Your task to perform on an android device: Go to Wikipedia Image 0: 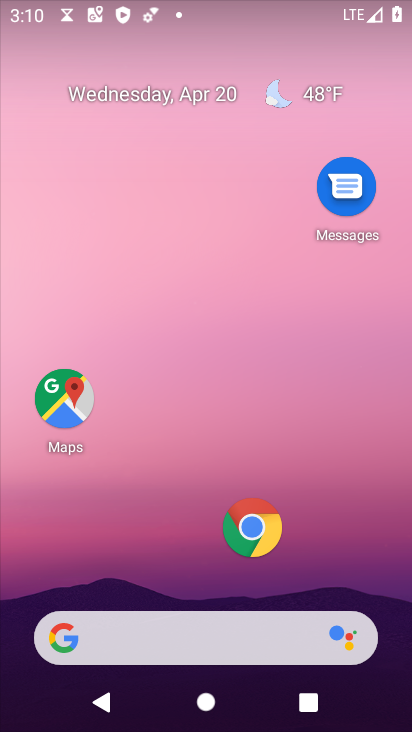
Step 0: drag from (230, 583) to (359, 3)
Your task to perform on an android device: Go to Wikipedia Image 1: 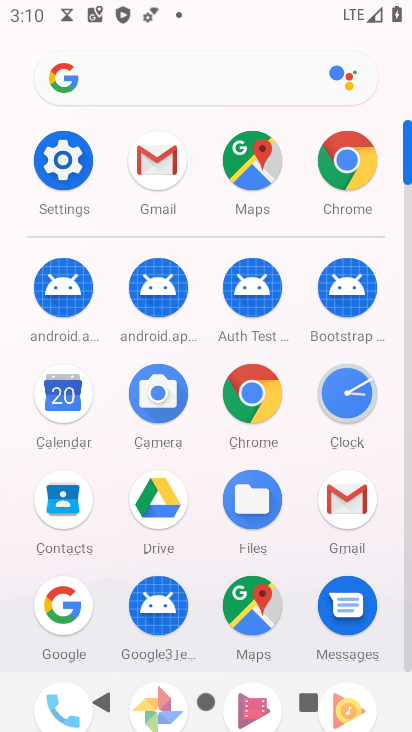
Step 1: click (336, 176)
Your task to perform on an android device: Go to Wikipedia Image 2: 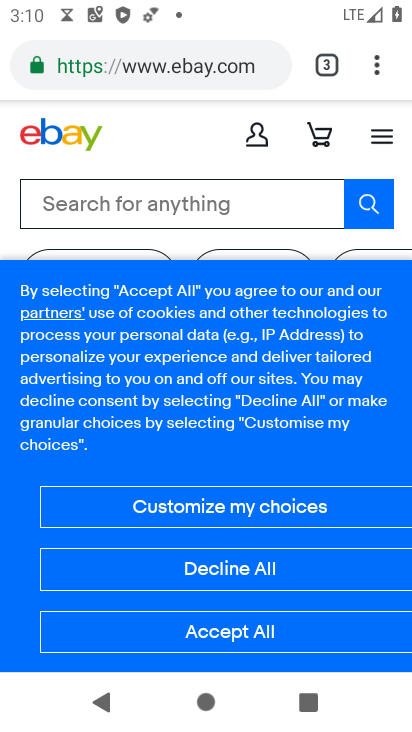
Step 2: click (379, 71)
Your task to perform on an android device: Go to Wikipedia Image 3: 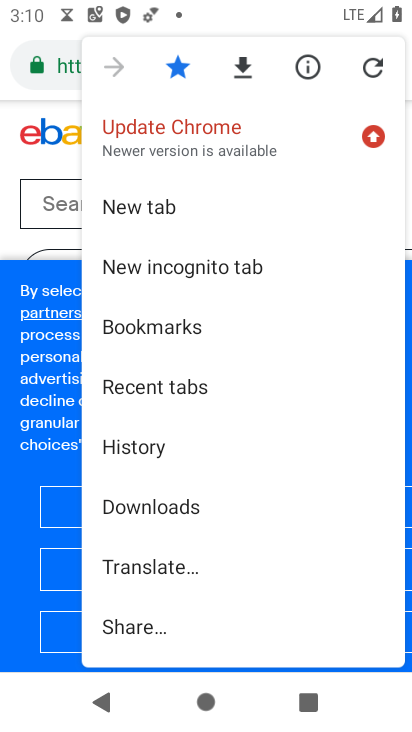
Step 3: click (150, 202)
Your task to perform on an android device: Go to Wikipedia Image 4: 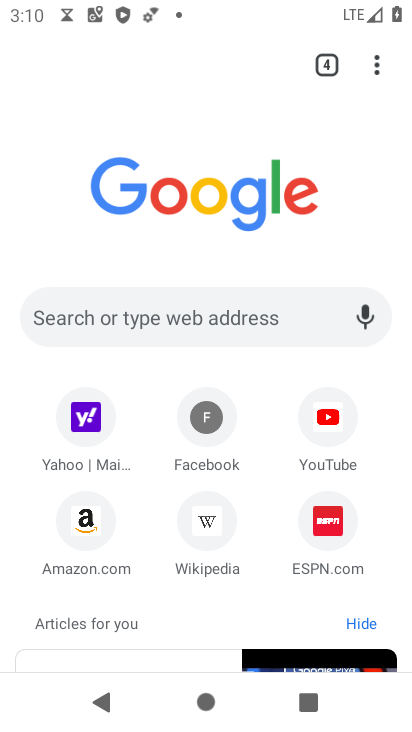
Step 4: click (210, 535)
Your task to perform on an android device: Go to Wikipedia Image 5: 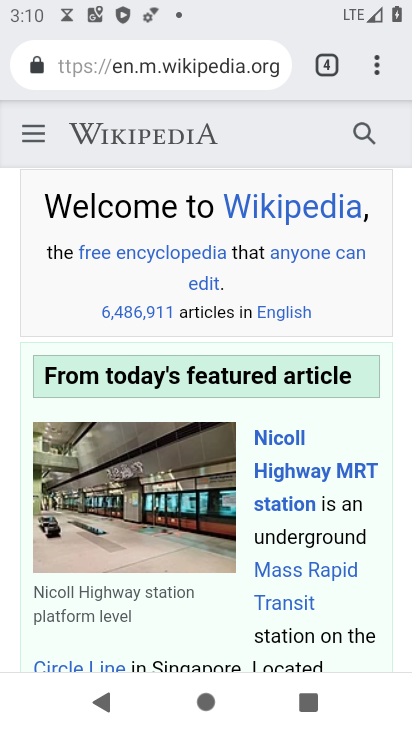
Step 5: task complete